Your task to perform on an android device: View the shopping cart on amazon. Search for "bose soundlink" on amazon, select the first entry, and add it to the cart. Image 0: 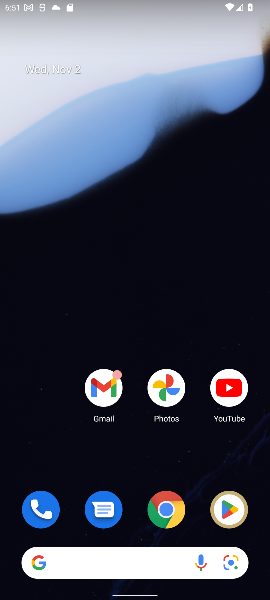
Step 0: click (118, 562)
Your task to perform on an android device: View the shopping cart on amazon. Search for "bose soundlink" on amazon, select the first entry, and add it to the cart. Image 1: 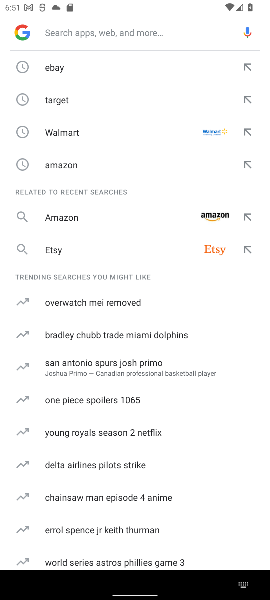
Step 1: click (73, 165)
Your task to perform on an android device: View the shopping cart on amazon. Search for "bose soundlink" on amazon, select the first entry, and add it to the cart. Image 2: 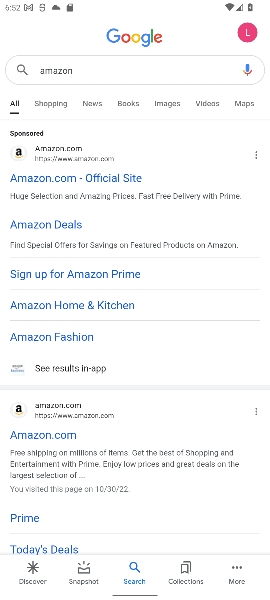
Step 2: click (50, 437)
Your task to perform on an android device: View the shopping cart on amazon. Search for "bose soundlink" on amazon, select the first entry, and add it to the cart. Image 3: 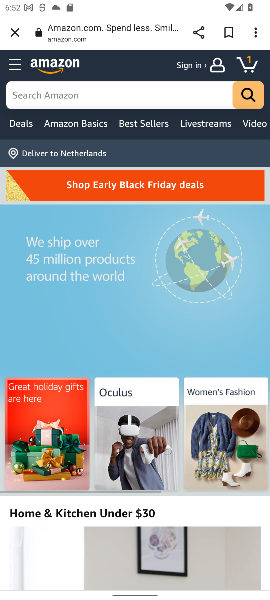
Step 3: click (60, 101)
Your task to perform on an android device: View the shopping cart on amazon. Search for "bose soundlink" on amazon, select the first entry, and add it to the cart. Image 4: 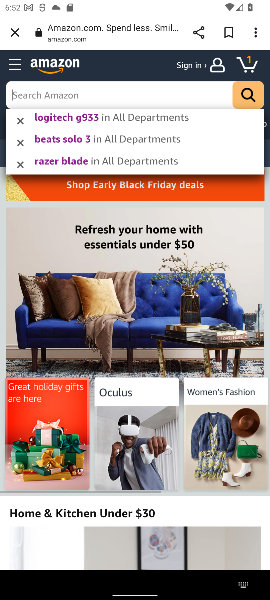
Step 4: type "bose soundlink"
Your task to perform on an android device: View the shopping cart on amazon. Search for "bose soundlink" on amazon, select the first entry, and add it to the cart. Image 5: 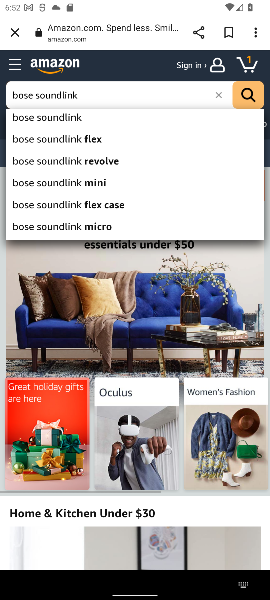
Step 5: click (66, 116)
Your task to perform on an android device: View the shopping cart on amazon. Search for "bose soundlink" on amazon, select the first entry, and add it to the cart. Image 6: 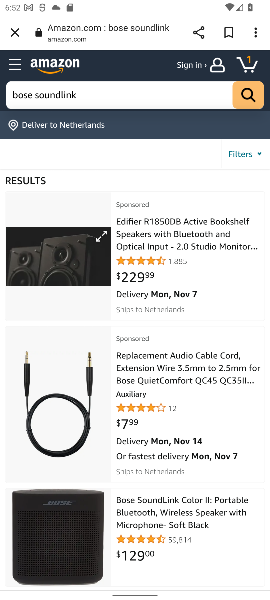
Step 6: click (169, 224)
Your task to perform on an android device: View the shopping cart on amazon. Search for "bose soundlink" on amazon, select the first entry, and add it to the cart. Image 7: 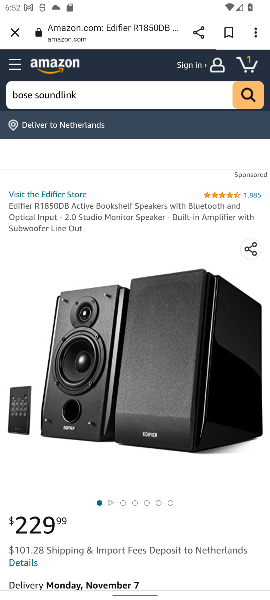
Step 7: drag from (190, 447) to (172, 250)
Your task to perform on an android device: View the shopping cart on amazon. Search for "bose soundlink" on amazon, select the first entry, and add it to the cart. Image 8: 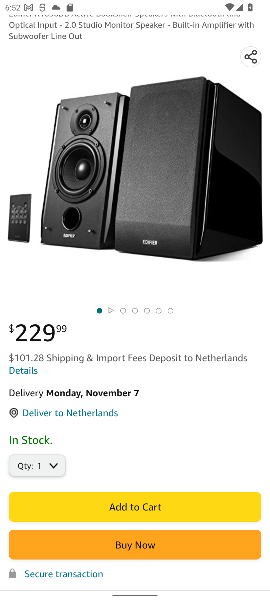
Step 8: click (143, 504)
Your task to perform on an android device: View the shopping cart on amazon. Search for "bose soundlink" on amazon, select the first entry, and add it to the cart. Image 9: 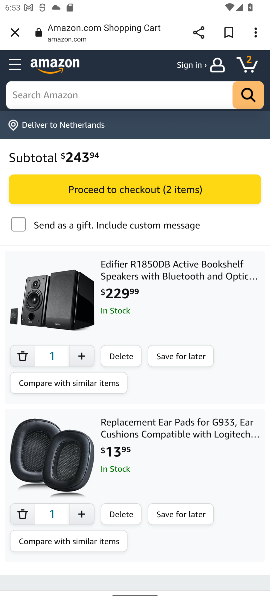
Step 9: task complete